Your task to perform on an android device: Go to settings Image 0: 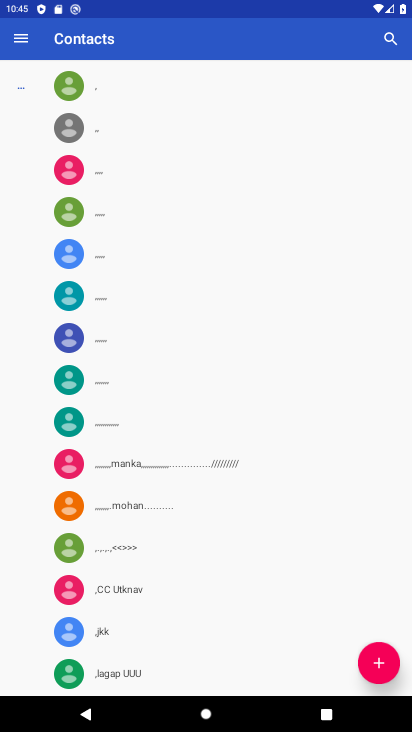
Step 0: press home button
Your task to perform on an android device: Go to settings Image 1: 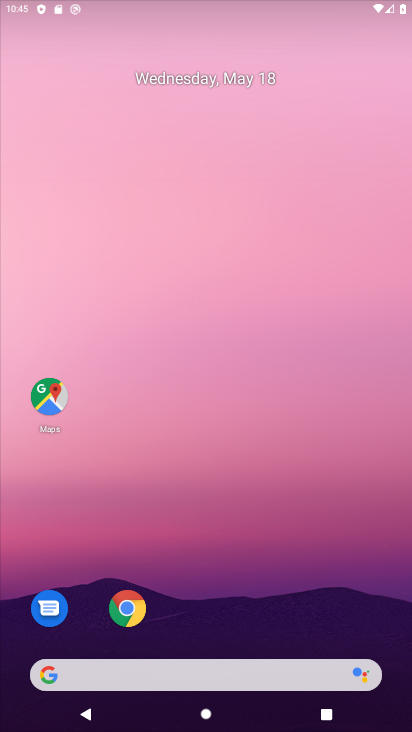
Step 1: drag from (297, 493) to (306, 70)
Your task to perform on an android device: Go to settings Image 2: 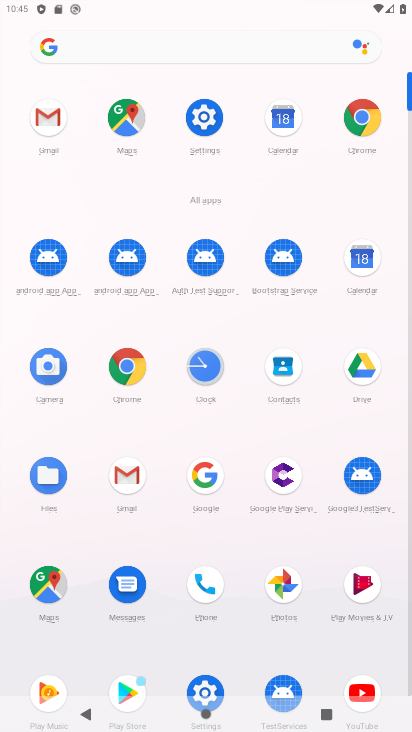
Step 2: click (202, 137)
Your task to perform on an android device: Go to settings Image 3: 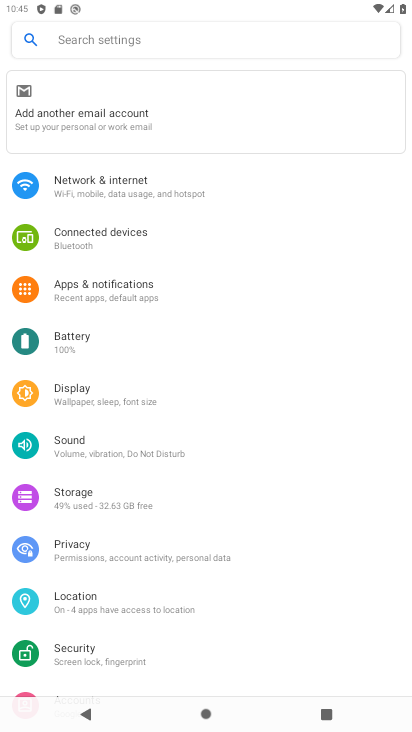
Step 3: task complete